Your task to perform on an android device: Open Amazon Image 0: 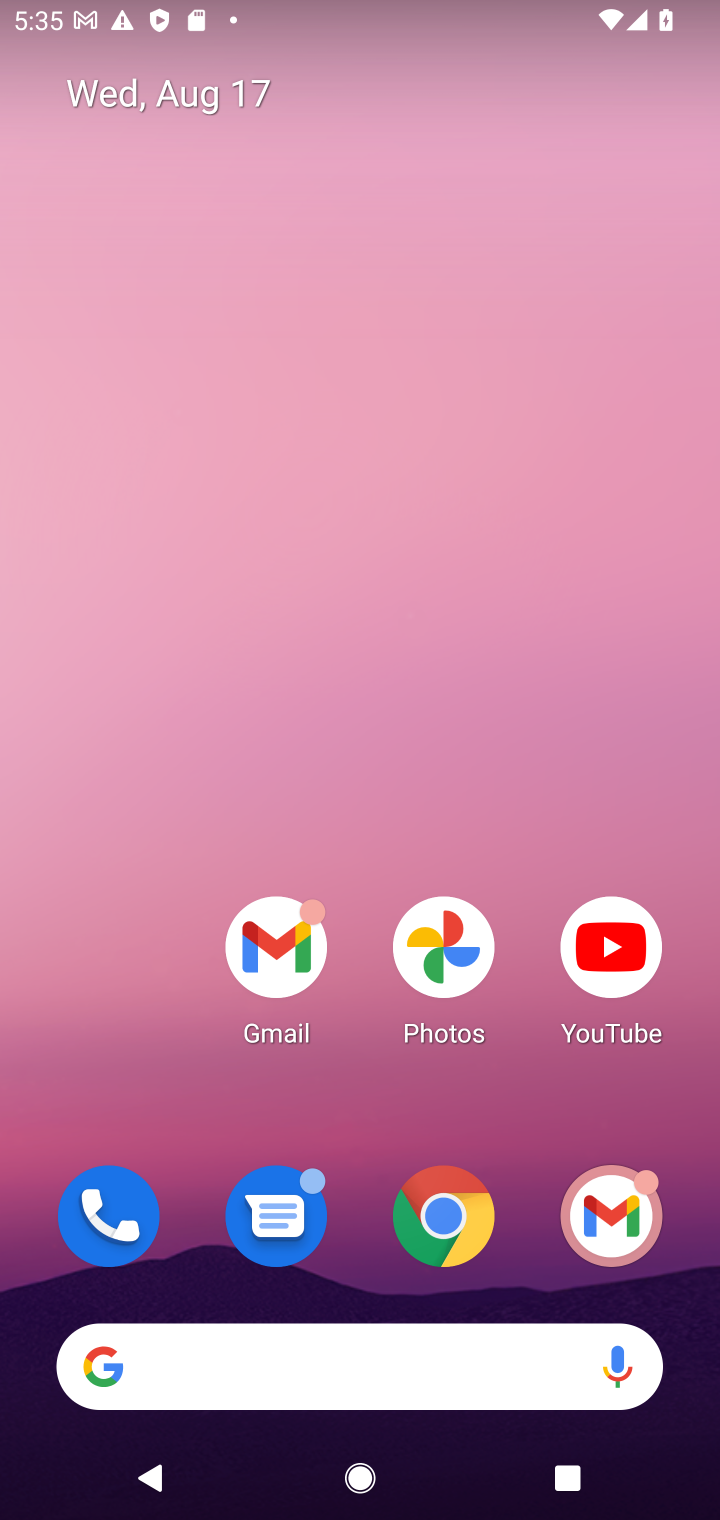
Step 0: drag from (509, 1095) to (509, 527)
Your task to perform on an android device: Open Amazon Image 1: 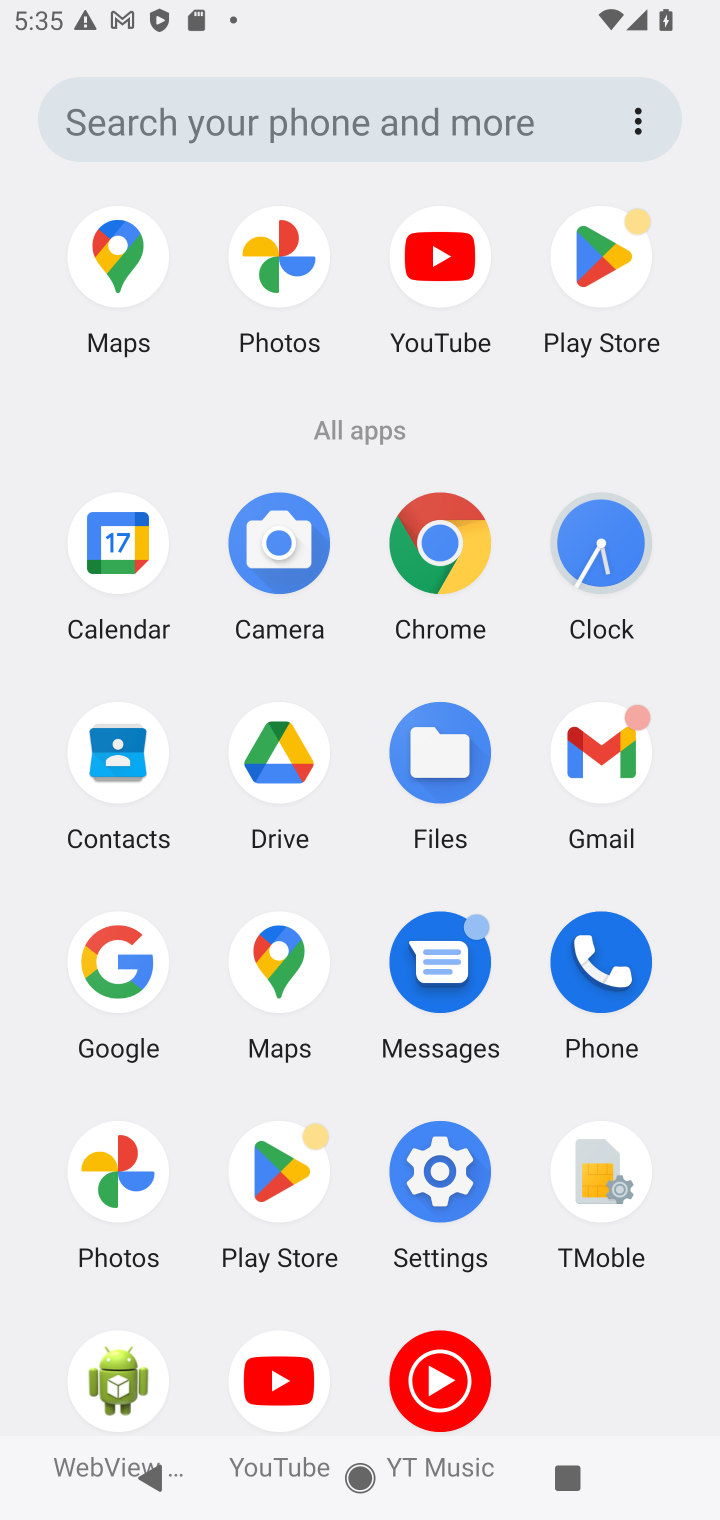
Step 1: click (451, 549)
Your task to perform on an android device: Open Amazon Image 2: 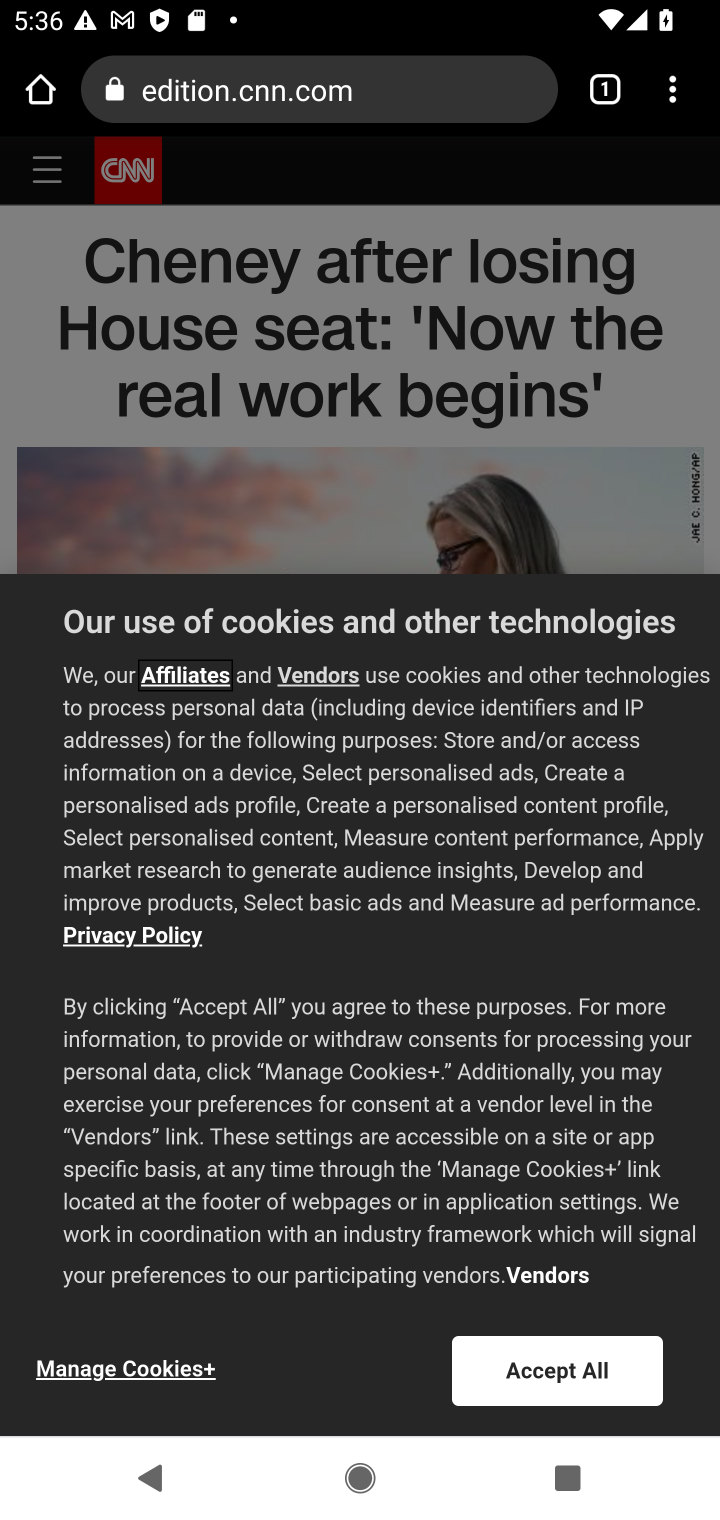
Step 2: click (677, 96)
Your task to perform on an android device: Open Amazon Image 3: 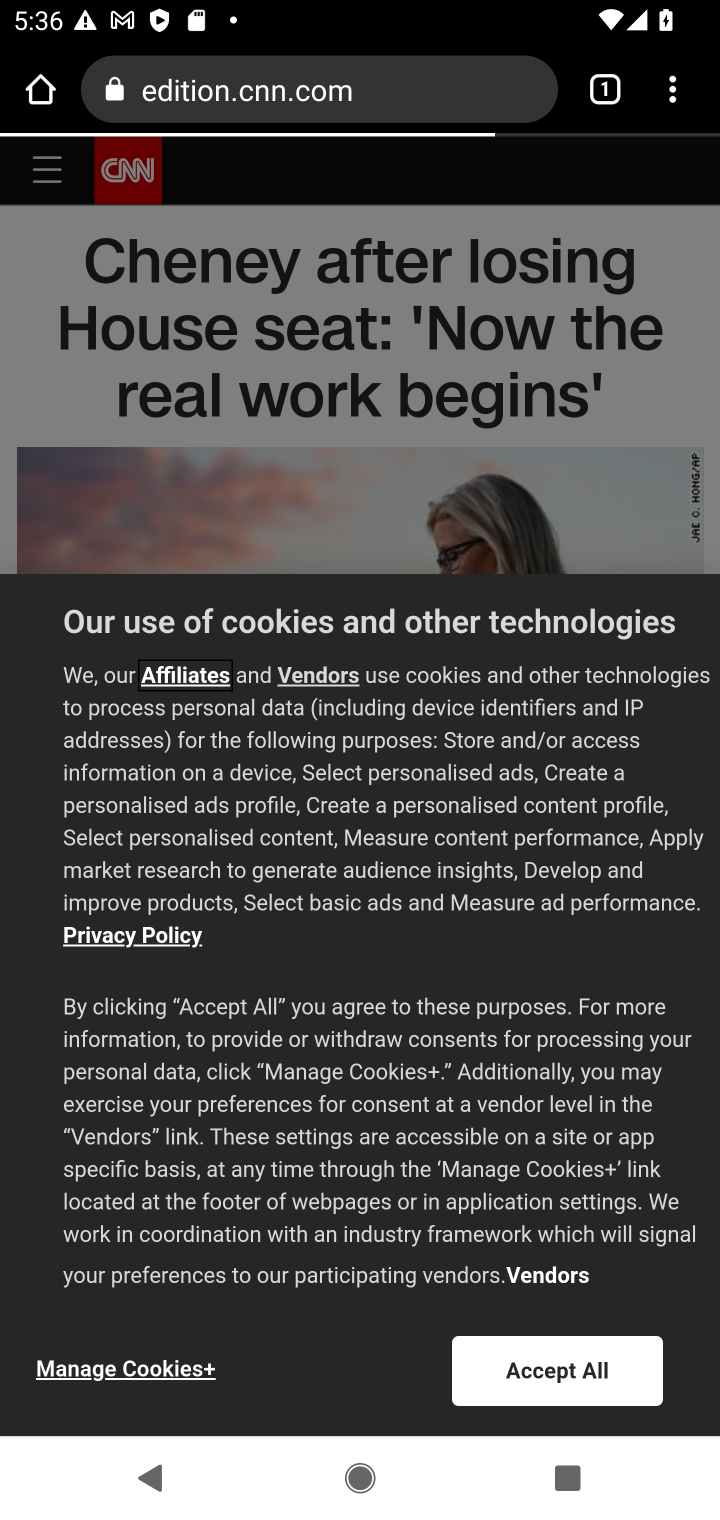
Step 3: click (677, 96)
Your task to perform on an android device: Open Amazon Image 4: 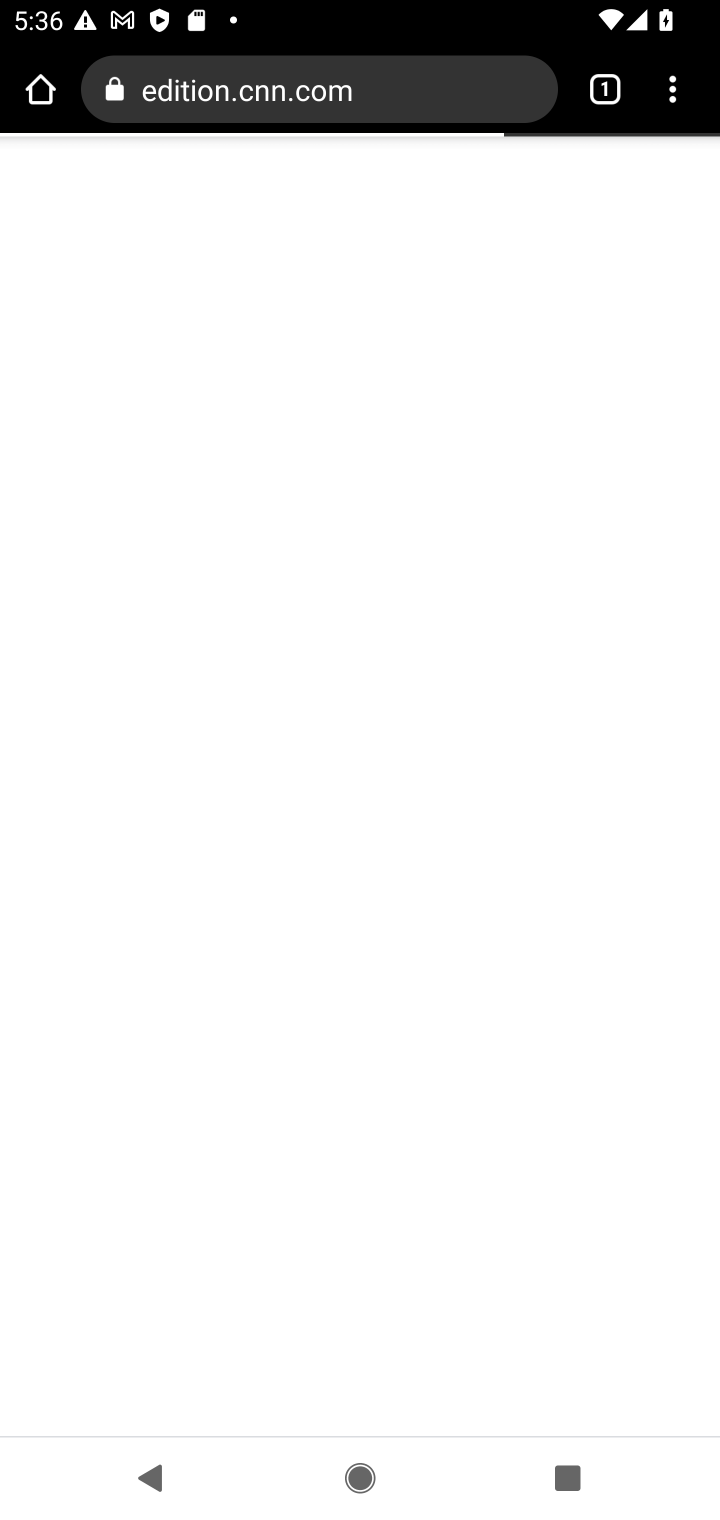
Step 4: click (677, 96)
Your task to perform on an android device: Open Amazon Image 5: 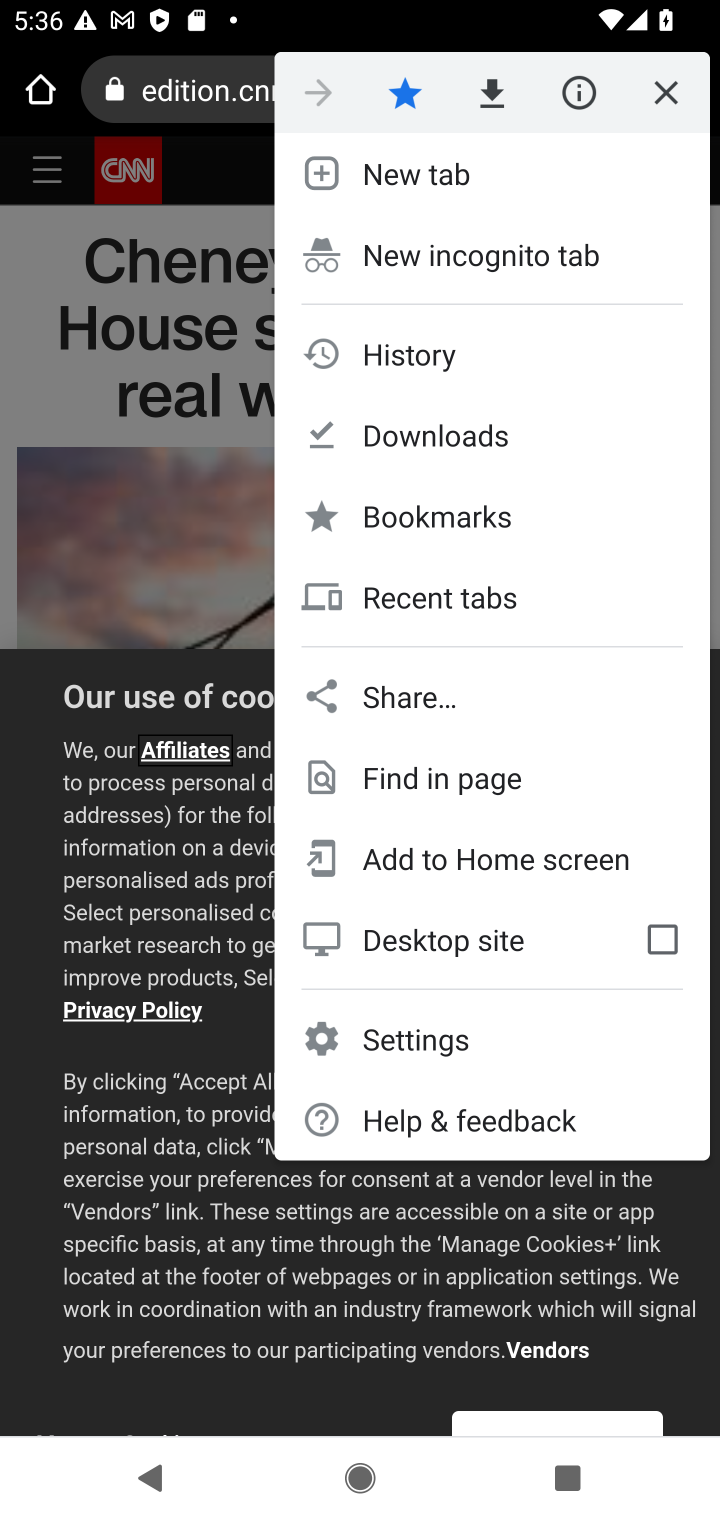
Step 5: click (423, 178)
Your task to perform on an android device: Open Amazon Image 6: 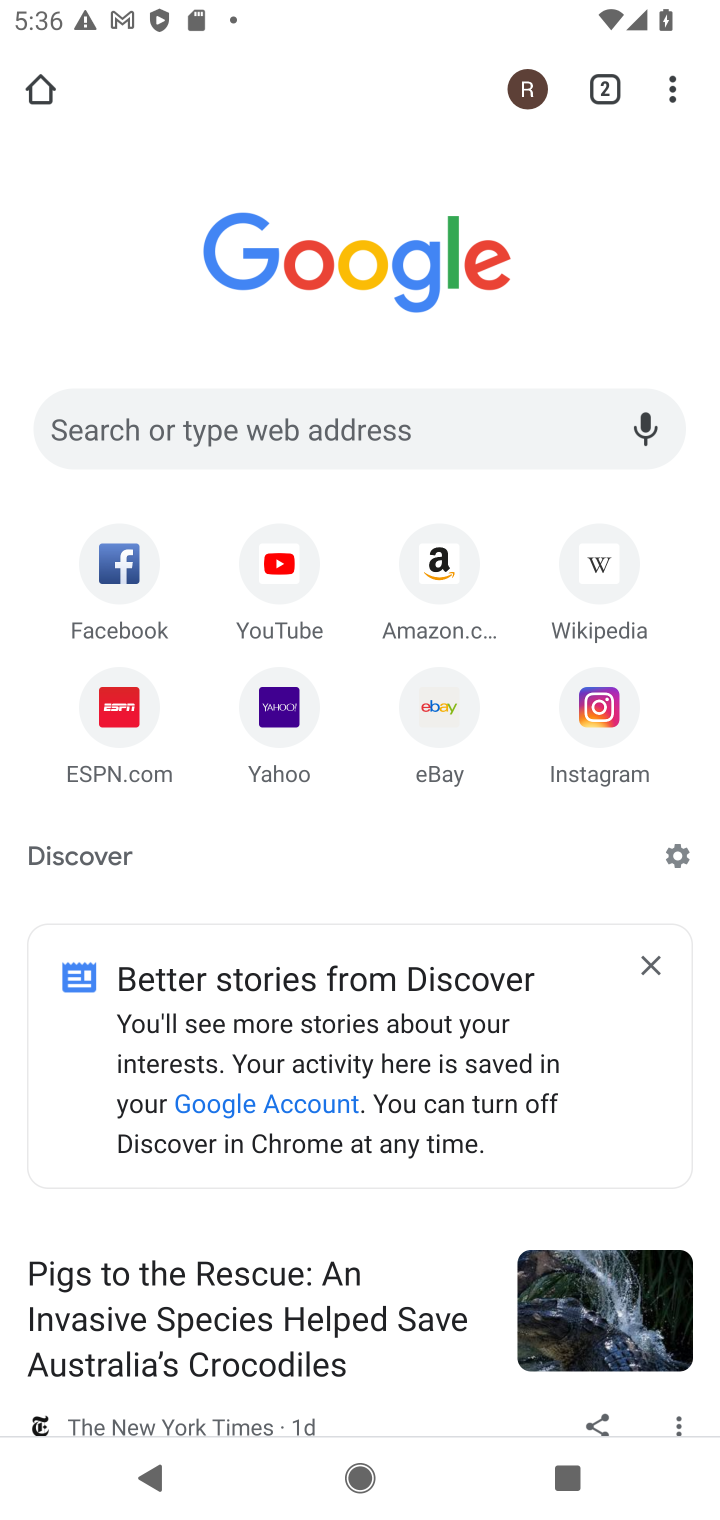
Step 6: click (436, 566)
Your task to perform on an android device: Open Amazon Image 7: 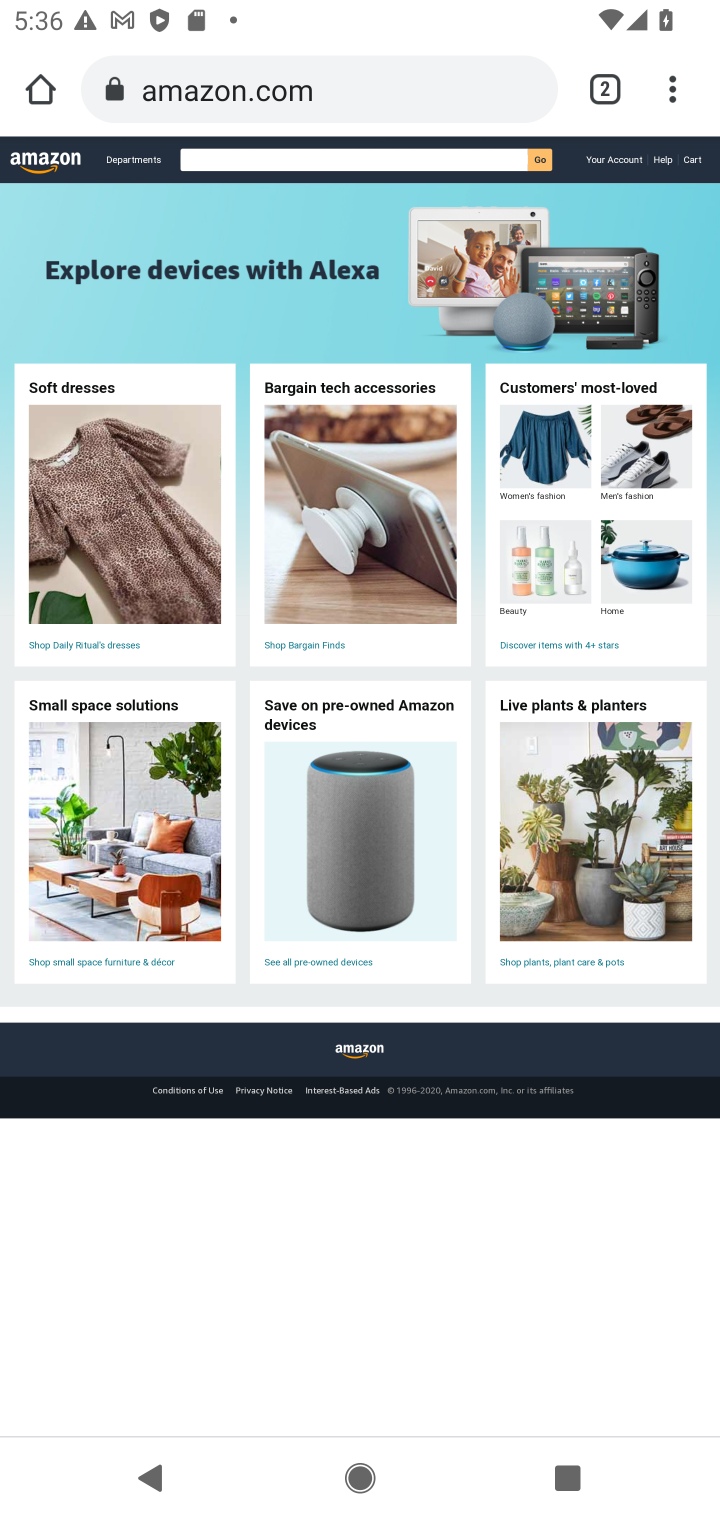
Step 7: task complete